Your task to perform on an android device: see creations saved in the google photos Image 0: 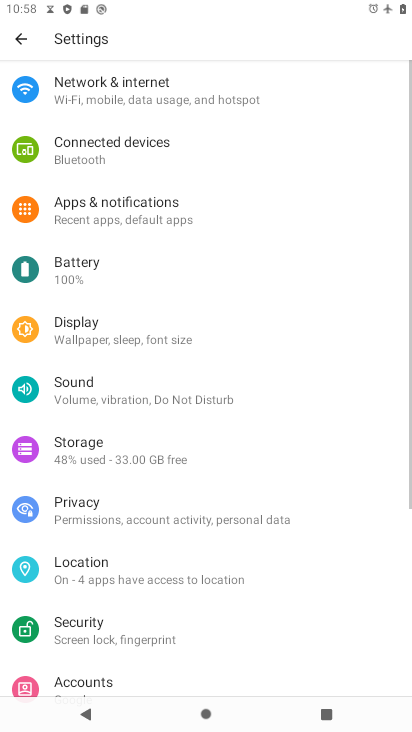
Step 0: press home button
Your task to perform on an android device: see creations saved in the google photos Image 1: 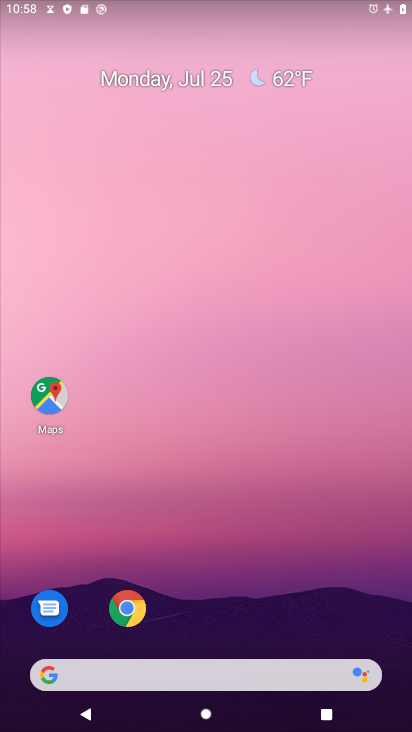
Step 1: drag from (165, 667) to (232, 283)
Your task to perform on an android device: see creations saved in the google photos Image 2: 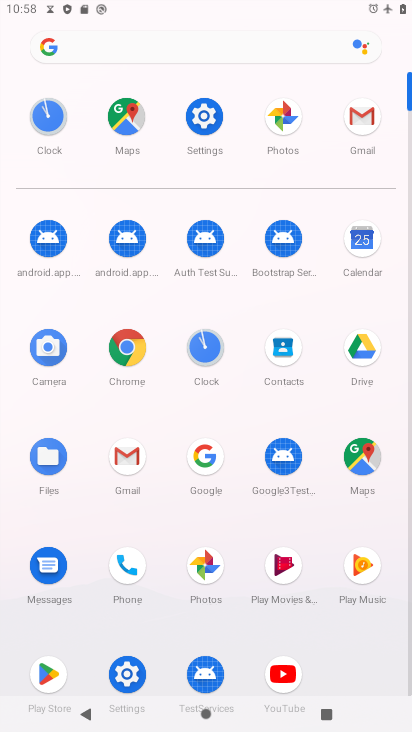
Step 2: click (284, 117)
Your task to perform on an android device: see creations saved in the google photos Image 3: 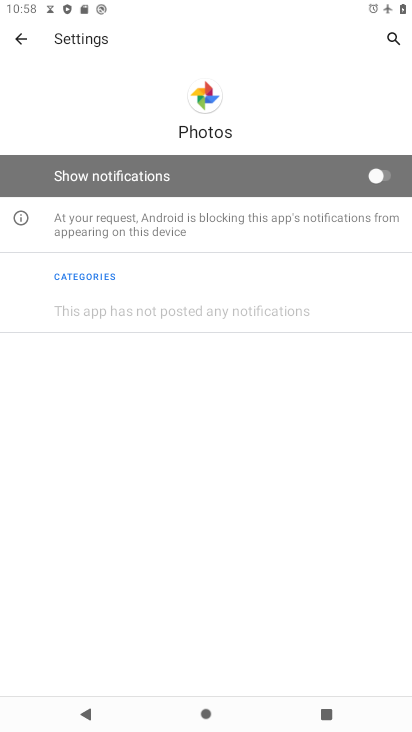
Step 3: press back button
Your task to perform on an android device: see creations saved in the google photos Image 4: 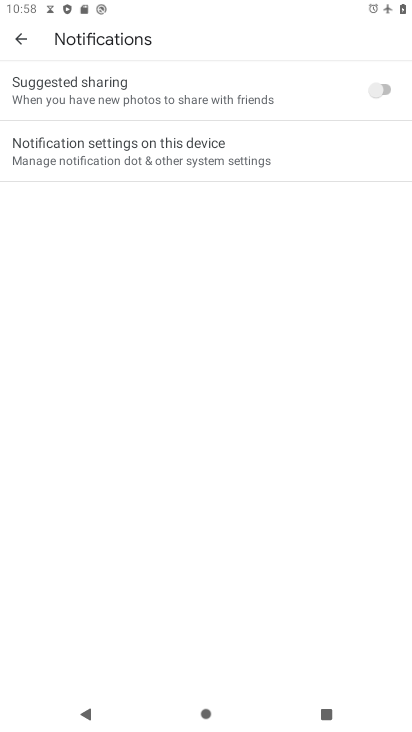
Step 4: press back button
Your task to perform on an android device: see creations saved in the google photos Image 5: 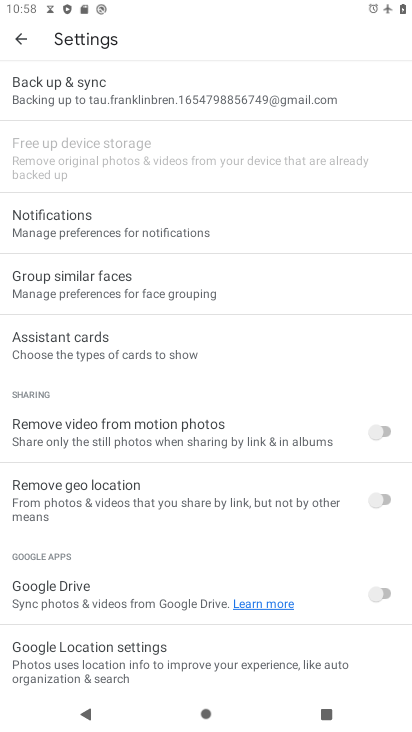
Step 5: press back button
Your task to perform on an android device: see creations saved in the google photos Image 6: 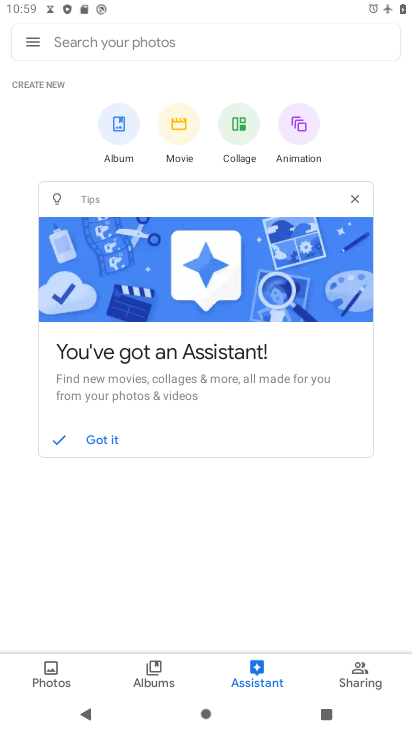
Step 6: click (168, 43)
Your task to perform on an android device: see creations saved in the google photos Image 7: 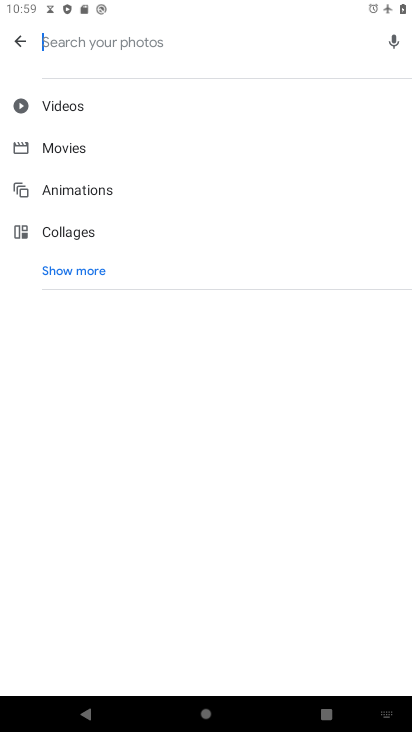
Step 7: click (72, 272)
Your task to perform on an android device: see creations saved in the google photos Image 8: 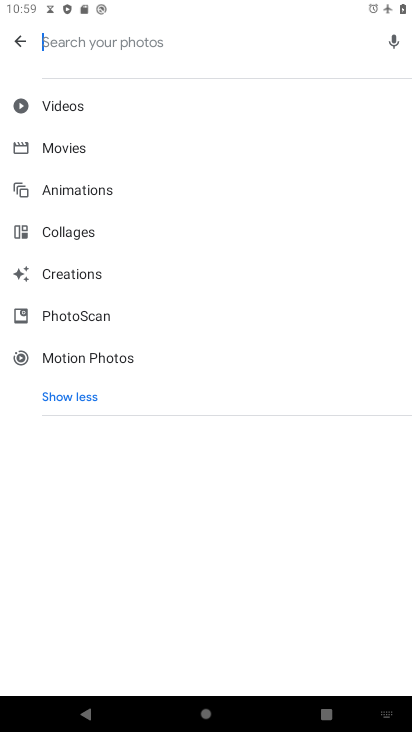
Step 8: click (83, 274)
Your task to perform on an android device: see creations saved in the google photos Image 9: 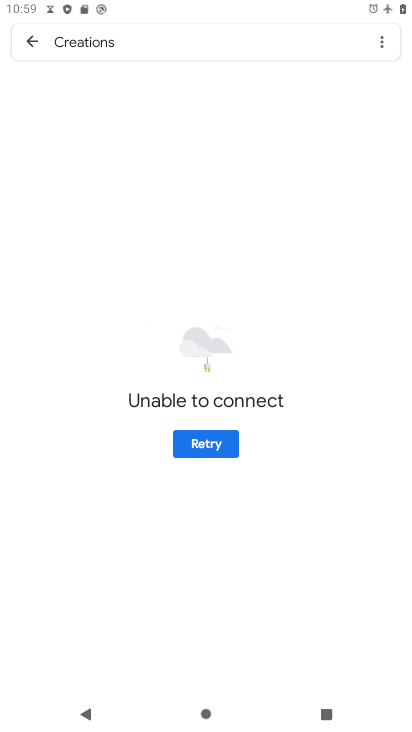
Step 9: click (200, 440)
Your task to perform on an android device: see creations saved in the google photos Image 10: 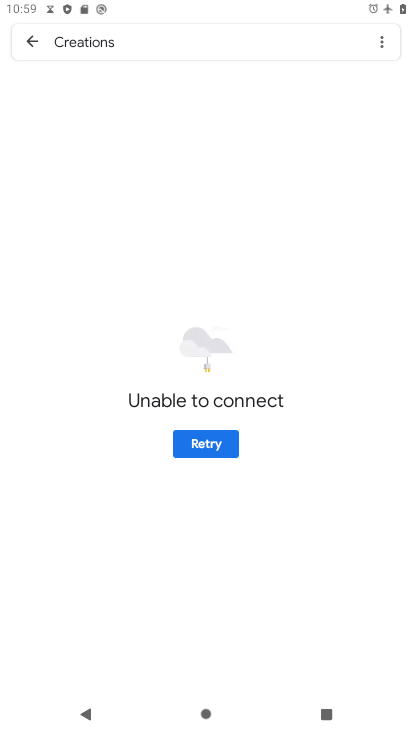
Step 10: task complete